Your task to perform on an android device: What's on my calendar today? Image 0: 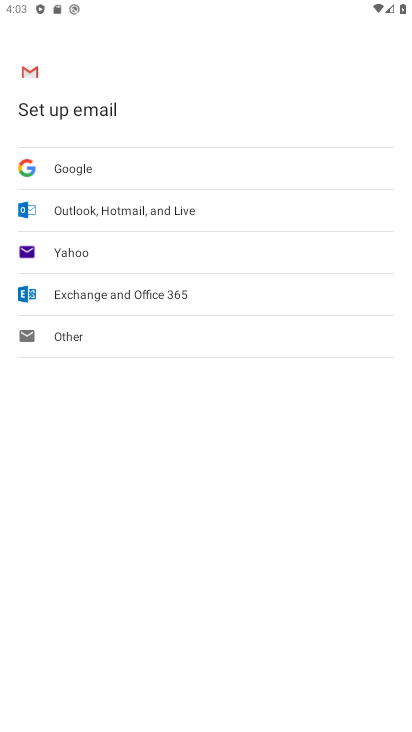
Step 0: press home button
Your task to perform on an android device: What's on my calendar today? Image 1: 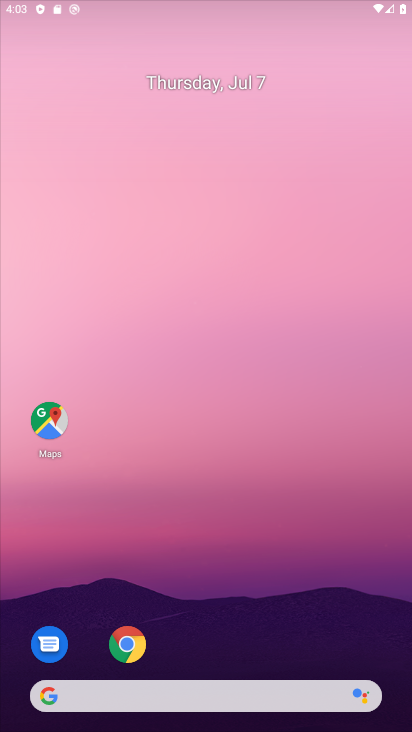
Step 1: drag from (230, 648) to (236, 189)
Your task to perform on an android device: What's on my calendar today? Image 2: 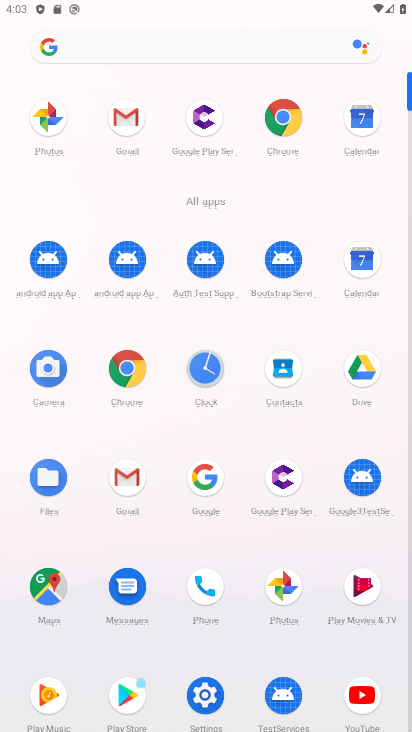
Step 2: click (354, 273)
Your task to perform on an android device: What's on my calendar today? Image 3: 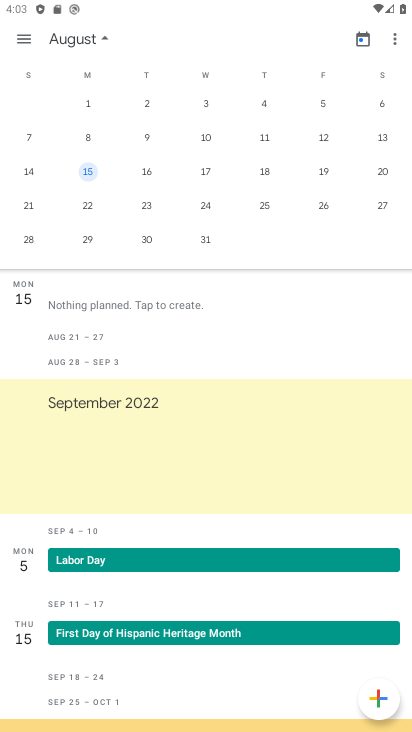
Step 3: drag from (79, 187) to (364, 202)
Your task to perform on an android device: What's on my calendar today? Image 4: 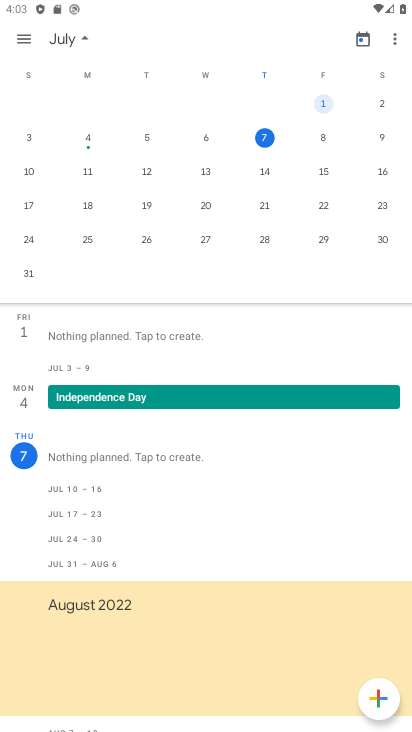
Step 4: click (261, 139)
Your task to perform on an android device: What's on my calendar today? Image 5: 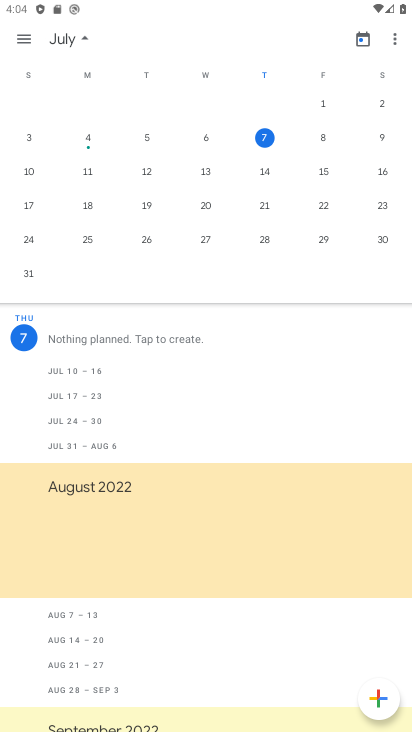
Step 5: task complete